Your task to perform on an android device: turn off smart reply in the gmail app Image 0: 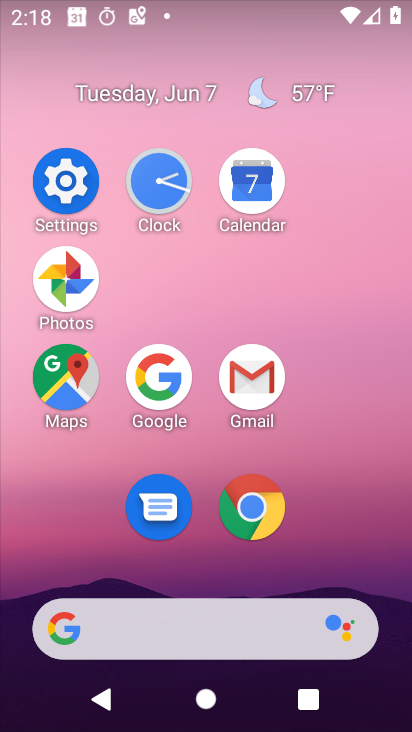
Step 0: press home button
Your task to perform on an android device: turn off smart reply in the gmail app Image 1: 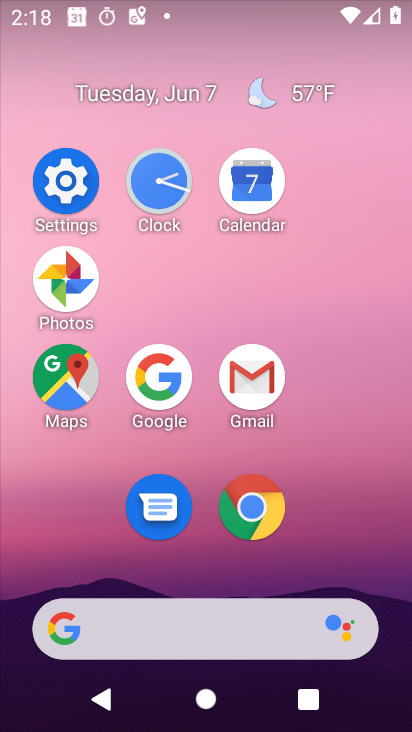
Step 1: click (247, 382)
Your task to perform on an android device: turn off smart reply in the gmail app Image 2: 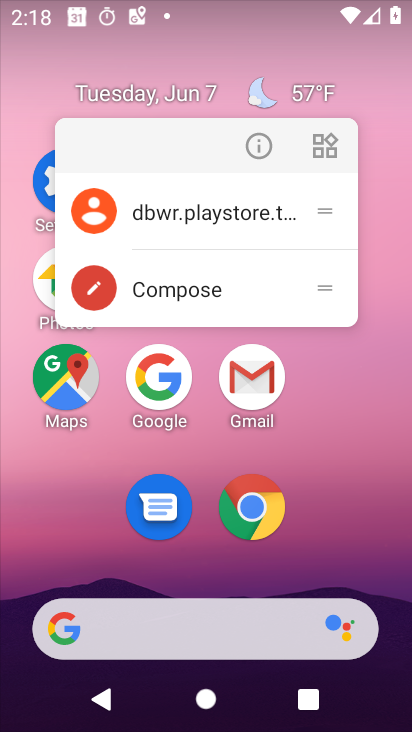
Step 2: click (260, 374)
Your task to perform on an android device: turn off smart reply in the gmail app Image 3: 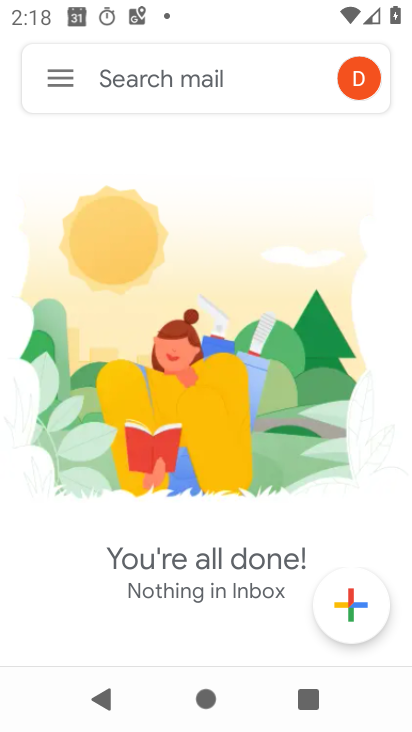
Step 3: click (65, 103)
Your task to perform on an android device: turn off smart reply in the gmail app Image 4: 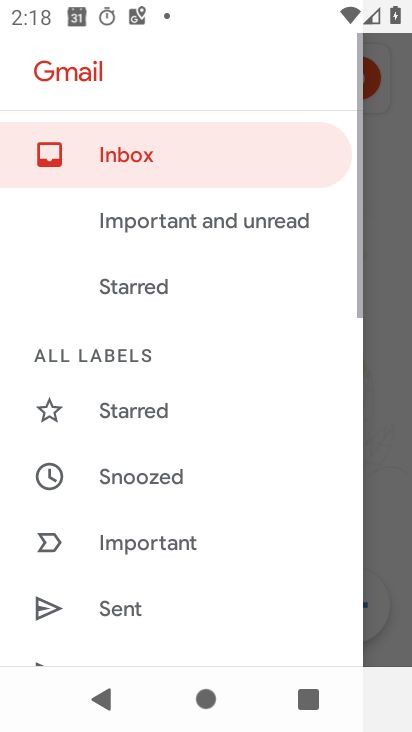
Step 4: drag from (152, 554) to (164, 194)
Your task to perform on an android device: turn off smart reply in the gmail app Image 5: 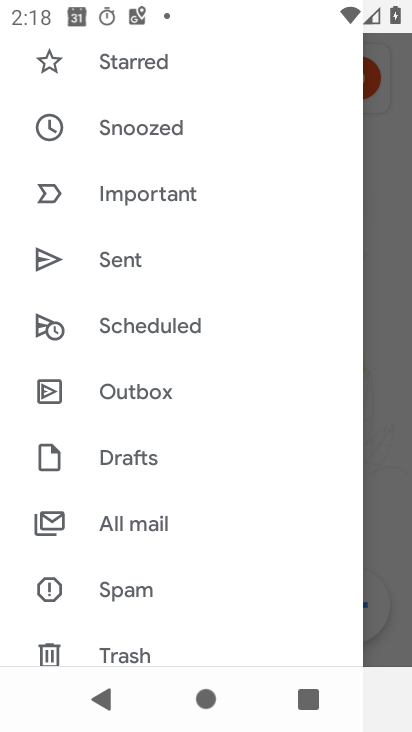
Step 5: drag from (181, 526) to (199, 142)
Your task to perform on an android device: turn off smart reply in the gmail app Image 6: 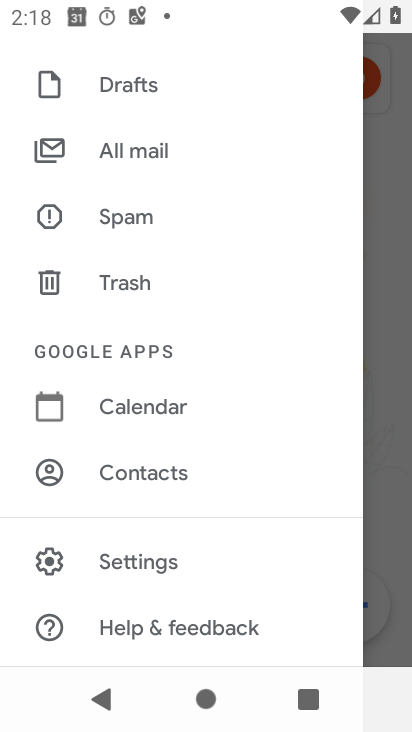
Step 6: click (205, 565)
Your task to perform on an android device: turn off smart reply in the gmail app Image 7: 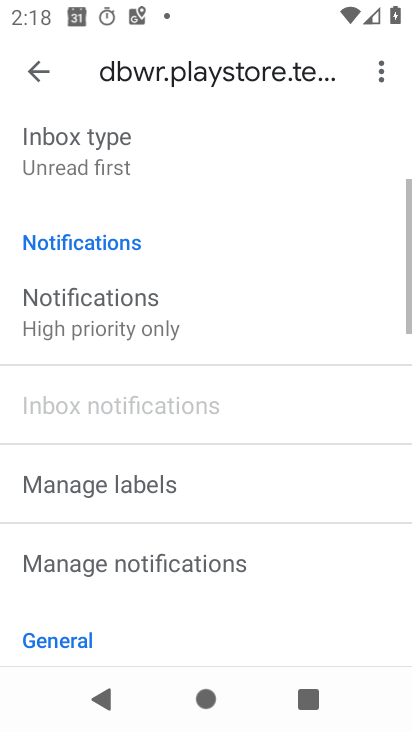
Step 7: task complete